Your task to perform on an android device: Add "amazon basics triple a" to the cart on newegg, then select checkout. Image 0: 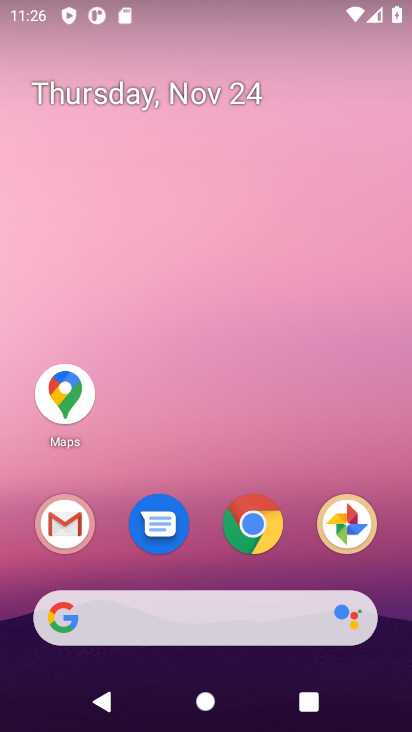
Step 0: click (251, 537)
Your task to perform on an android device: Add "amazon basics triple a" to the cart on newegg, then select checkout. Image 1: 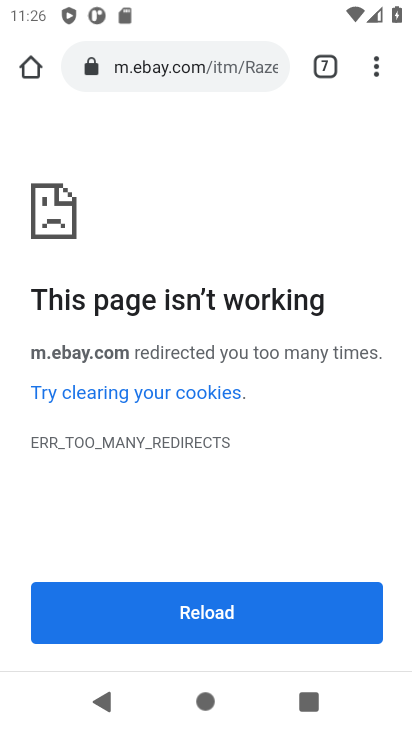
Step 1: click (151, 66)
Your task to perform on an android device: Add "amazon basics triple a" to the cart on newegg, then select checkout. Image 2: 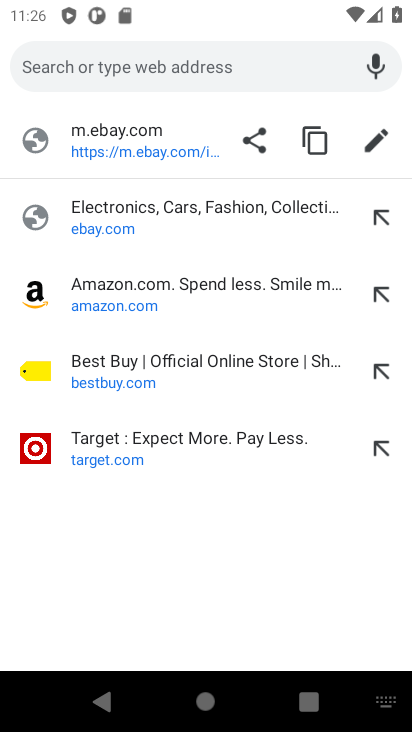
Step 2: type "newegg.com"
Your task to perform on an android device: Add "amazon basics triple a" to the cart on newegg, then select checkout. Image 3: 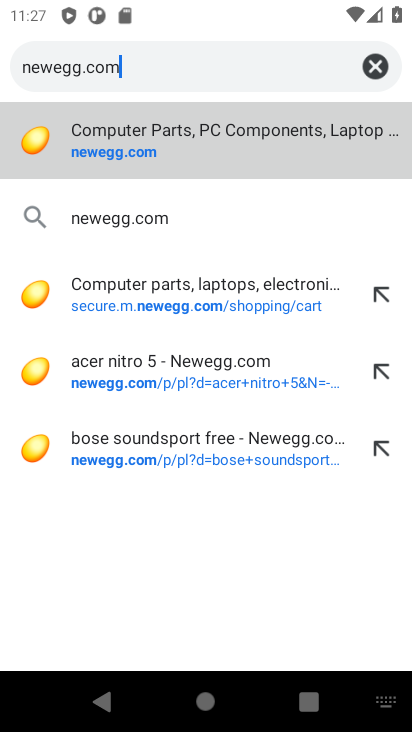
Step 3: click (92, 157)
Your task to perform on an android device: Add "amazon basics triple a" to the cart on newegg, then select checkout. Image 4: 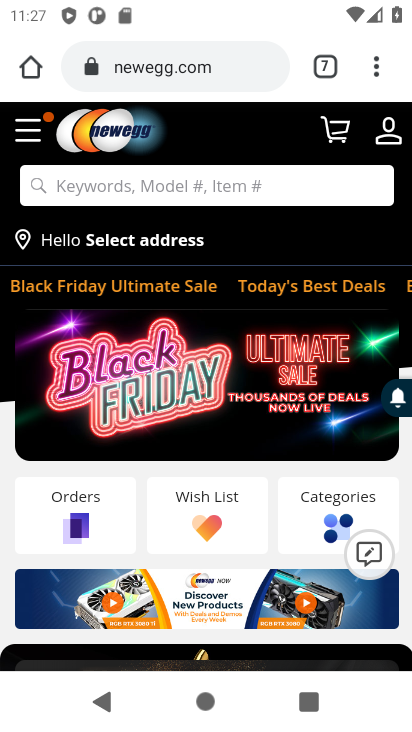
Step 4: click (101, 187)
Your task to perform on an android device: Add "amazon basics triple a" to the cart on newegg, then select checkout. Image 5: 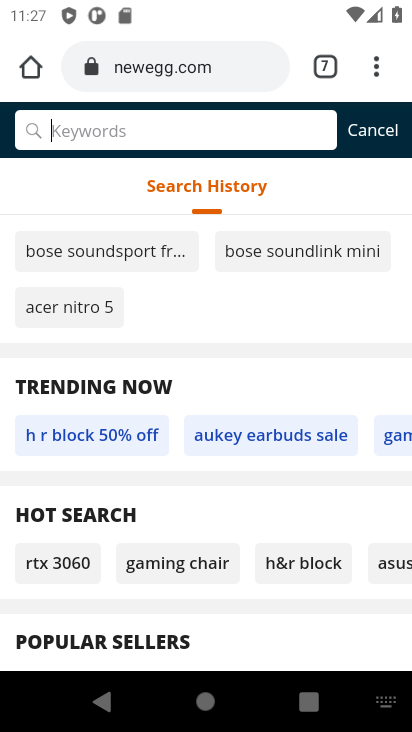
Step 5: type "amazon basics triple a"
Your task to perform on an android device: Add "amazon basics triple a" to the cart on newegg, then select checkout. Image 6: 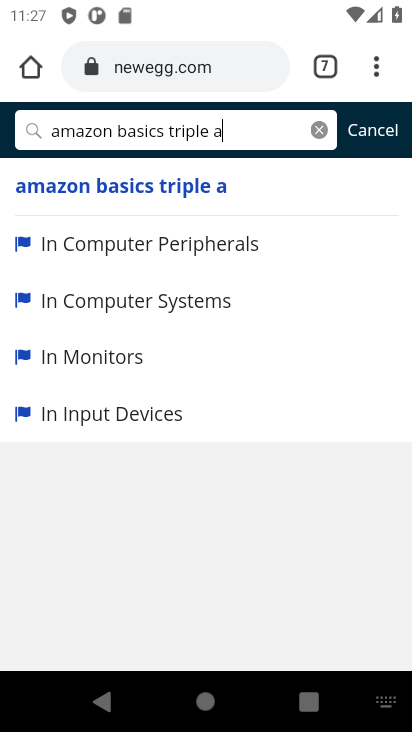
Step 6: click (96, 193)
Your task to perform on an android device: Add "amazon basics triple a" to the cart on newegg, then select checkout. Image 7: 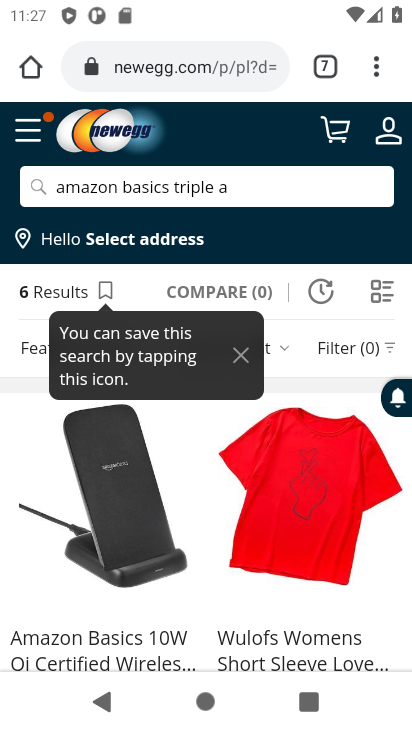
Step 7: task complete